Your task to perform on an android device: Open maps Image 0: 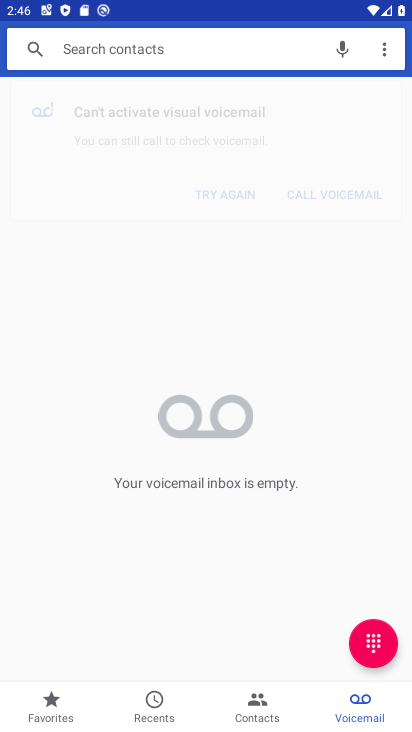
Step 0: press home button
Your task to perform on an android device: Open maps Image 1: 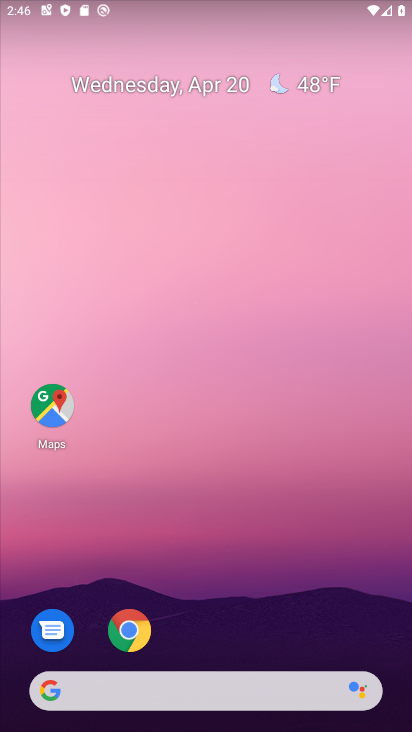
Step 1: click (49, 392)
Your task to perform on an android device: Open maps Image 2: 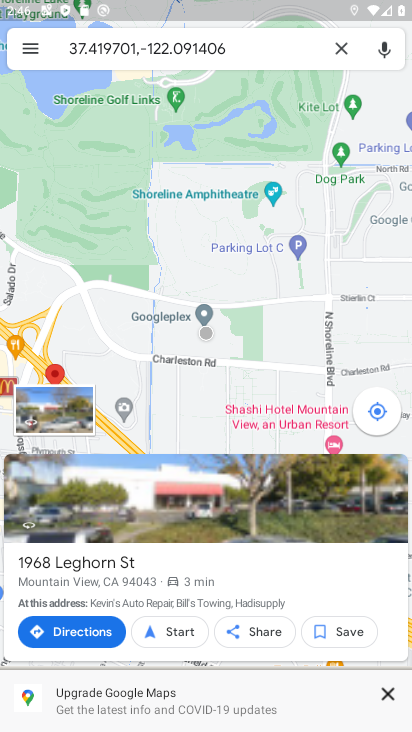
Step 2: click (355, 48)
Your task to perform on an android device: Open maps Image 3: 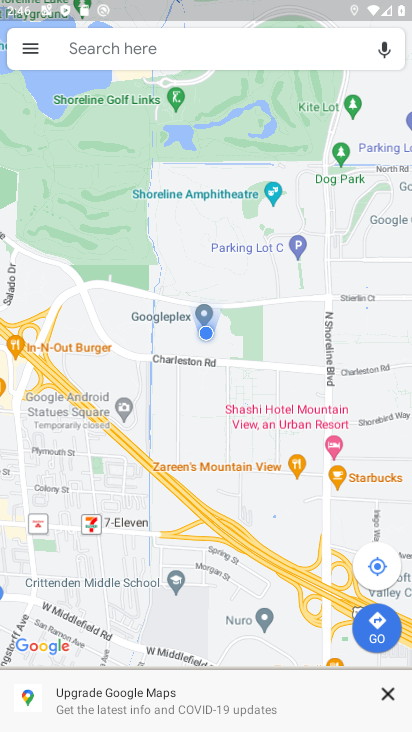
Step 3: task complete